Your task to perform on an android device: find which apps use the phone's location Image 0: 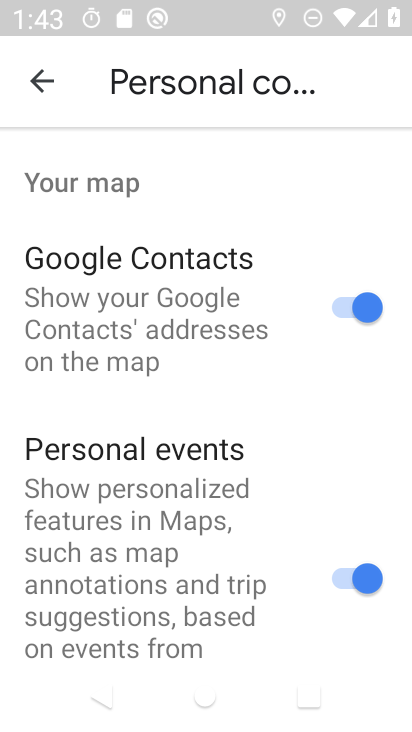
Step 0: press home button
Your task to perform on an android device: find which apps use the phone's location Image 1: 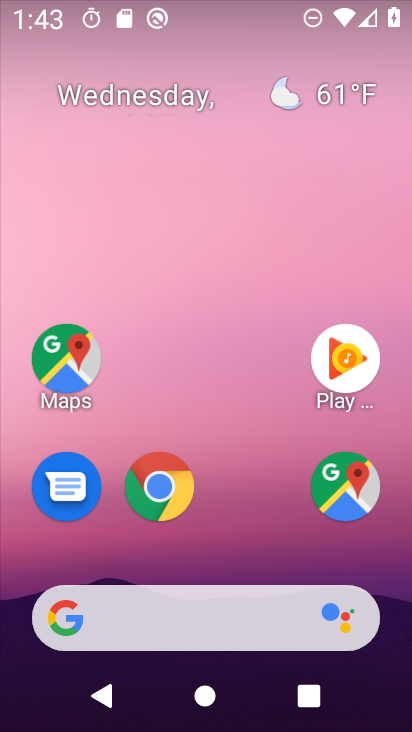
Step 1: drag from (249, 525) to (255, 92)
Your task to perform on an android device: find which apps use the phone's location Image 2: 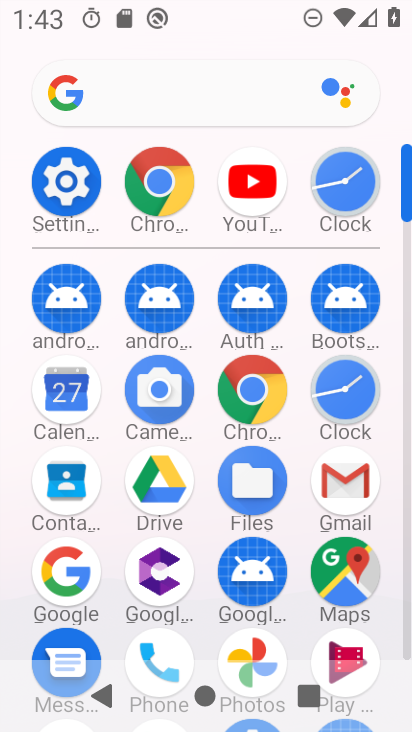
Step 2: click (48, 181)
Your task to perform on an android device: find which apps use the phone's location Image 3: 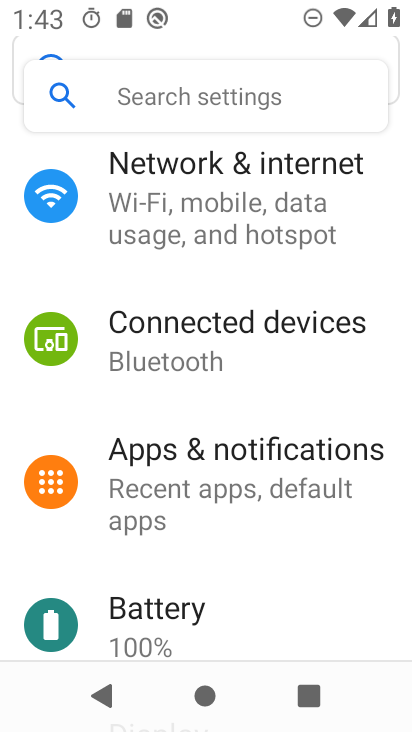
Step 3: drag from (353, 511) to (355, 420)
Your task to perform on an android device: find which apps use the phone's location Image 4: 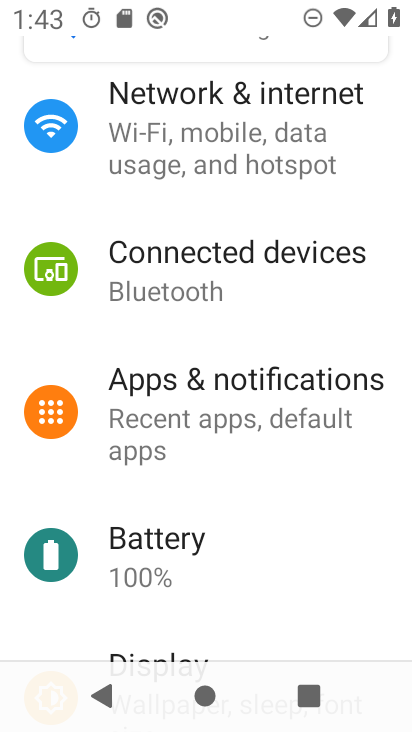
Step 4: drag from (353, 545) to (349, 441)
Your task to perform on an android device: find which apps use the phone's location Image 5: 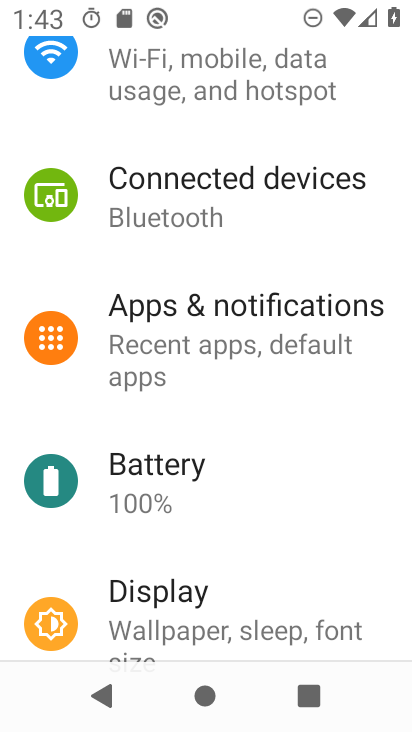
Step 5: drag from (330, 575) to (318, 491)
Your task to perform on an android device: find which apps use the phone's location Image 6: 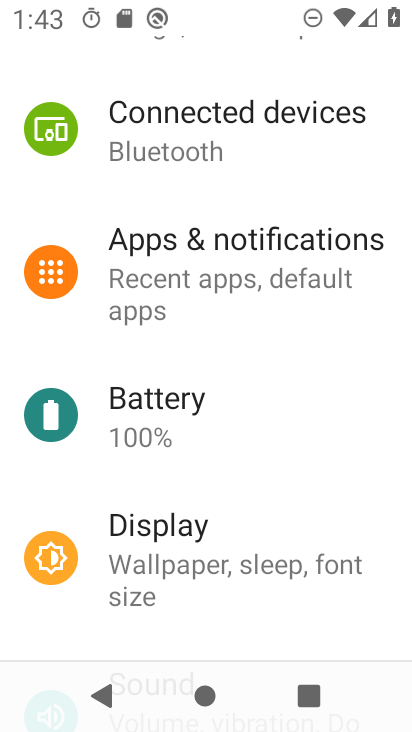
Step 6: drag from (309, 578) to (301, 484)
Your task to perform on an android device: find which apps use the phone's location Image 7: 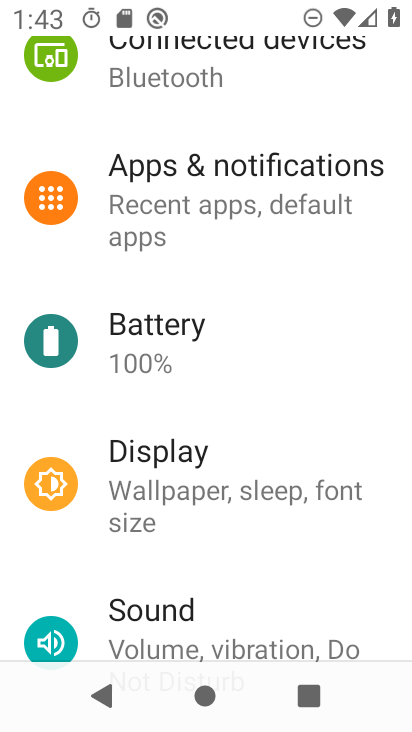
Step 7: drag from (310, 559) to (304, 474)
Your task to perform on an android device: find which apps use the phone's location Image 8: 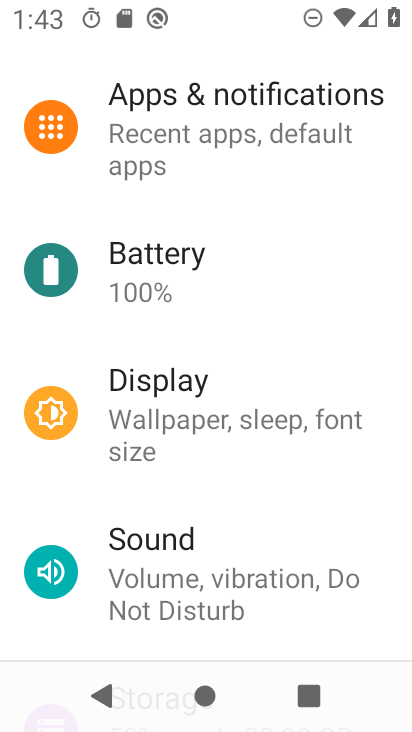
Step 8: drag from (318, 515) to (325, 391)
Your task to perform on an android device: find which apps use the phone's location Image 9: 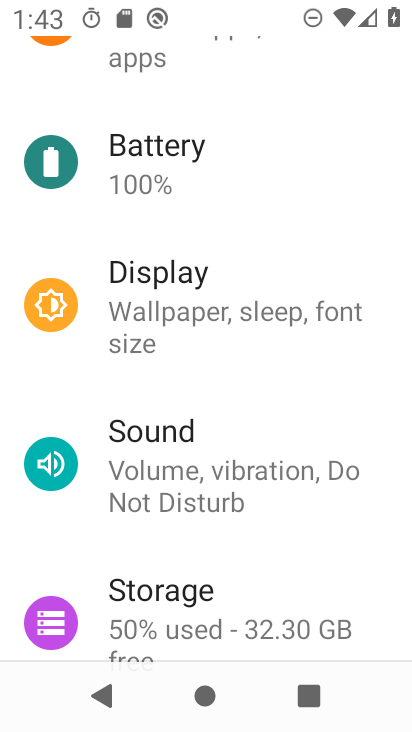
Step 9: drag from (349, 560) to (345, 455)
Your task to perform on an android device: find which apps use the phone's location Image 10: 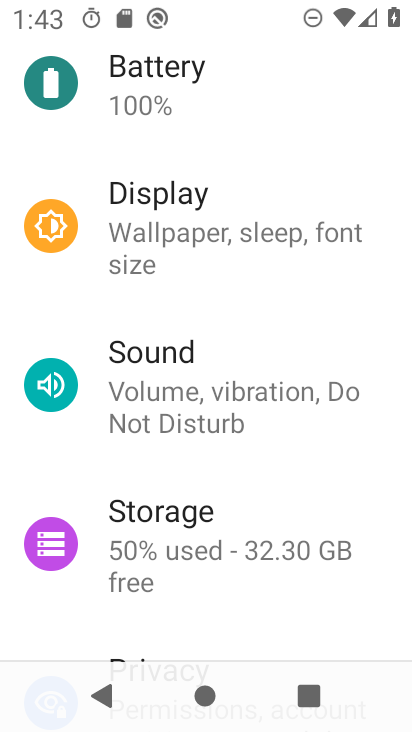
Step 10: drag from (331, 576) to (329, 459)
Your task to perform on an android device: find which apps use the phone's location Image 11: 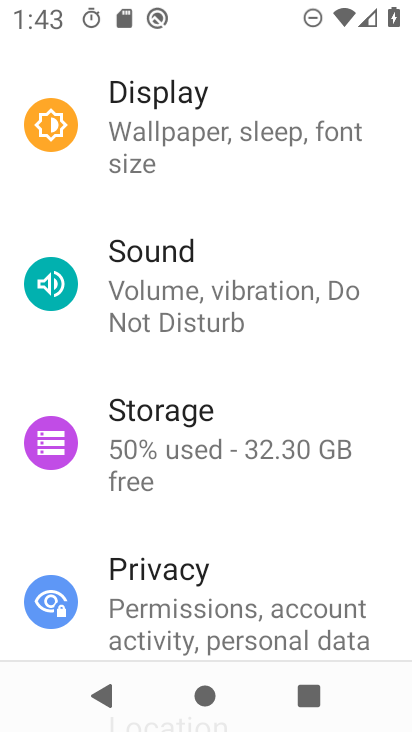
Step 11: drag from (331, 537) to (324, 445)
Your task to perform on an android device: find which apps use the phone's location Image 12: 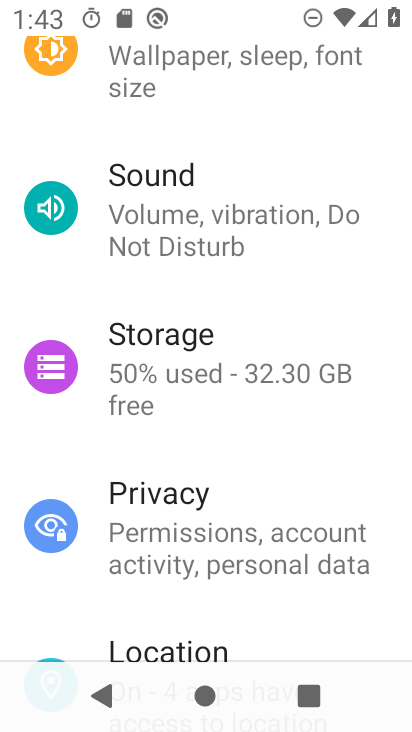
Step 12: drag from (322, 569) to (317, 463)
Your task to perform on an android device: find which apps use the phone's location Image 13: 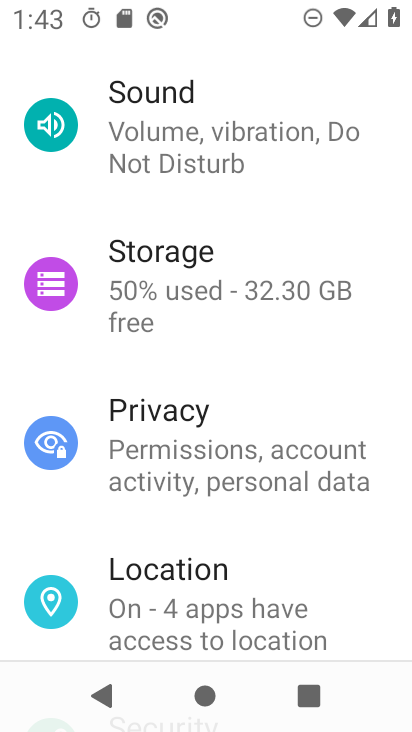
Step 13: drag from (336, 530) to (328, 439)
Your task to perform on an android device: find which apps use the phone's location Image 14: 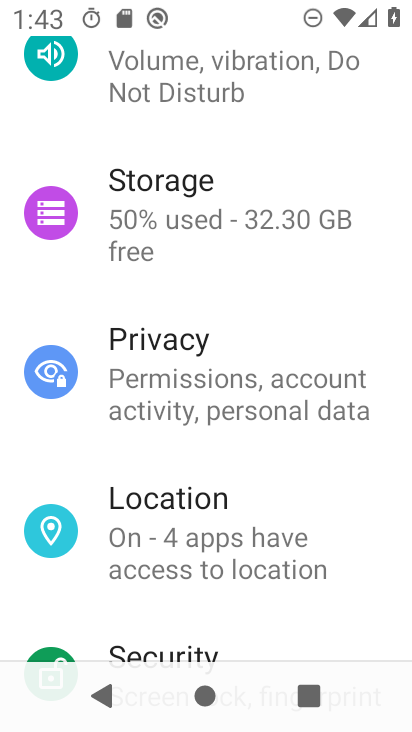
Step 14: drag from (326, 510) to (324, 436)
Your task to perform on an android device: find which apps use the phone's location Image 15: 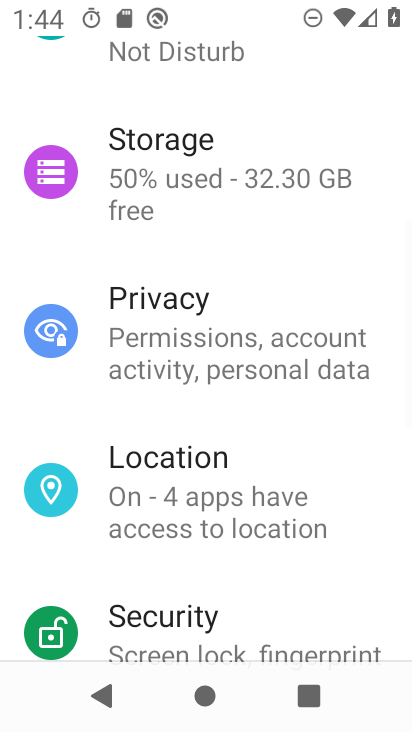
Step 15: click (317, 481)
Your task to perform on an android device: find which apps use the phone's location Image 16: 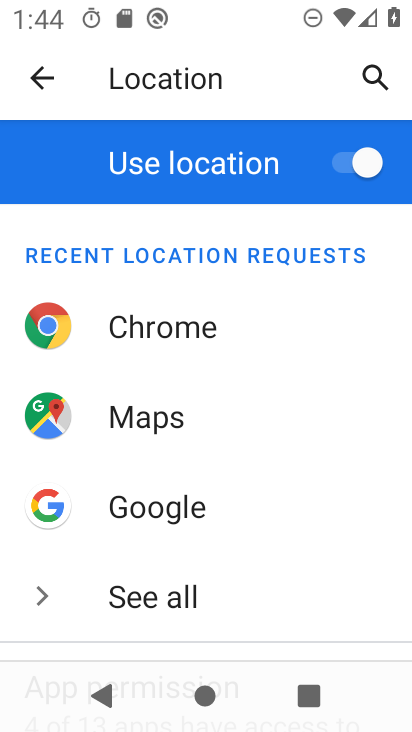
Step 16: drag from (317, 558) to (313, 440)
Your task to perform on an android device: find which apps use the phone's location Image 17: 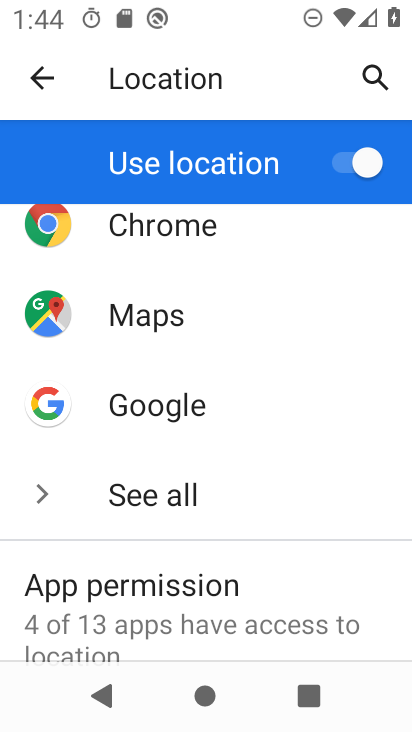
Step 17: drag from (326, 536) to (323, 452)
Your task to perform on an android device: find which apps use the phone's location Image 18: 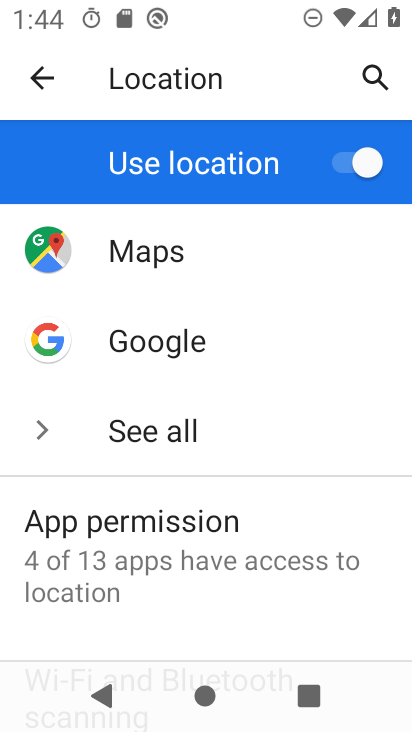
Step 18: drag from (284, 579) to (278, 406)
Your task to perform on an android device: find which apps use the phone's location Image 19: 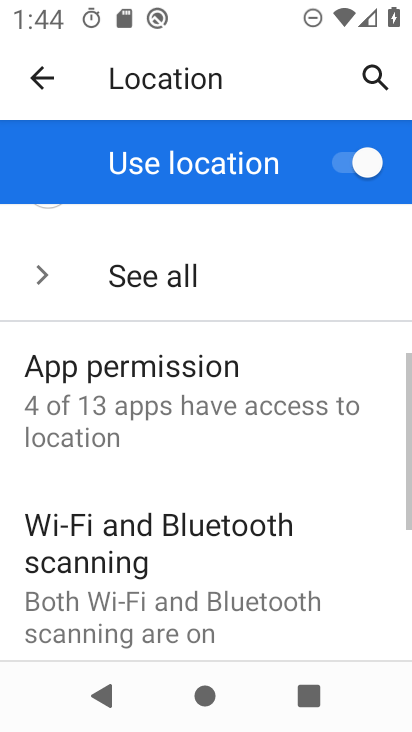
Step 19: click (277, 405)
Your task to perform on an android device: find which apps use the phone's location Image 20: 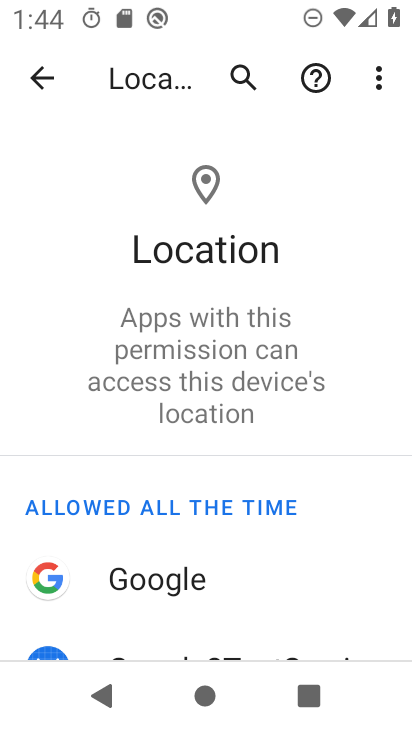
Step 20: drag from (310, 562) to (328, 402)
Your task to perform on an android device: find which apps use the phone's location Image 21: 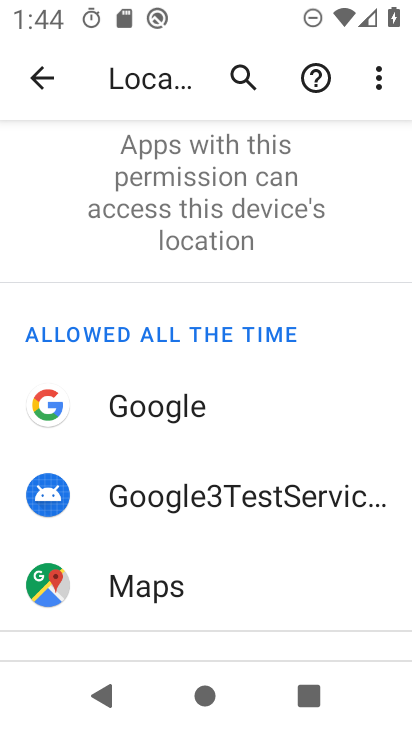
Step 21: drag from (307, 572) to (309, 400)
Your task to perform on an android device: find which apps use the phone's location Image 22: 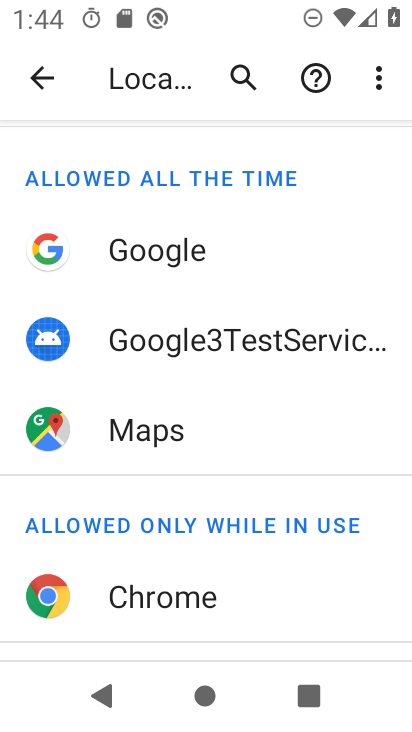
Step 22: drag from (311, 576) to (314, 273)
Your task to perform on an android device: find which apps use the phone's location Image 23: 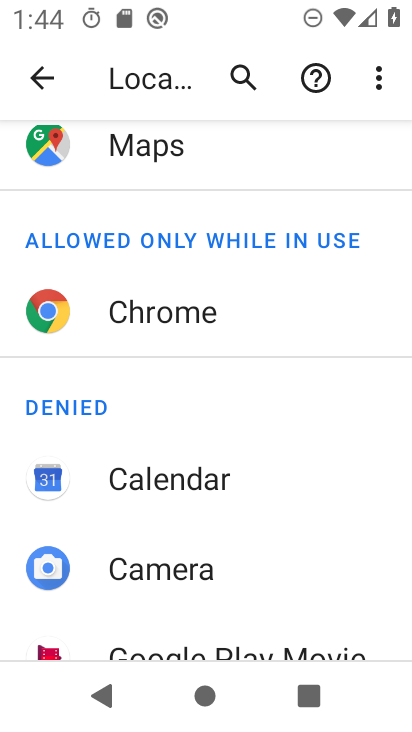
Step 23: drag from (318, 533) to (318, 359)
Your task to perform on an android device: find which apps use the phone's location Image 24: 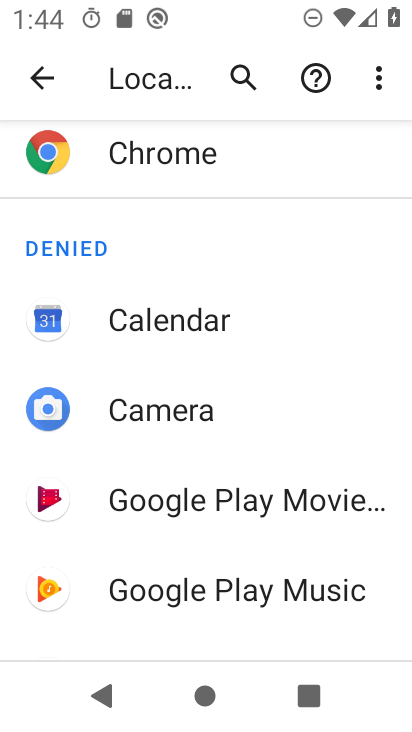
Step 24: drag from (333, 622) to (325, 387)
Your task to perform on an android device: find which apps use the phone's location Image 25: 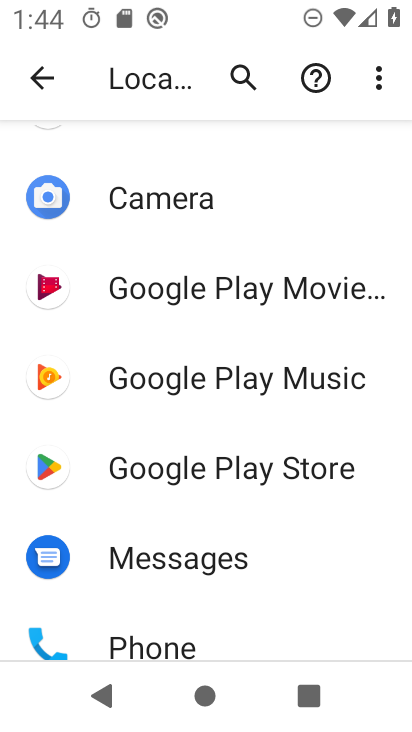
Step 25: drag from (331, 594) to (335, 400)
Your task to perform on an android device: find which apps use the phone's location Image 26: 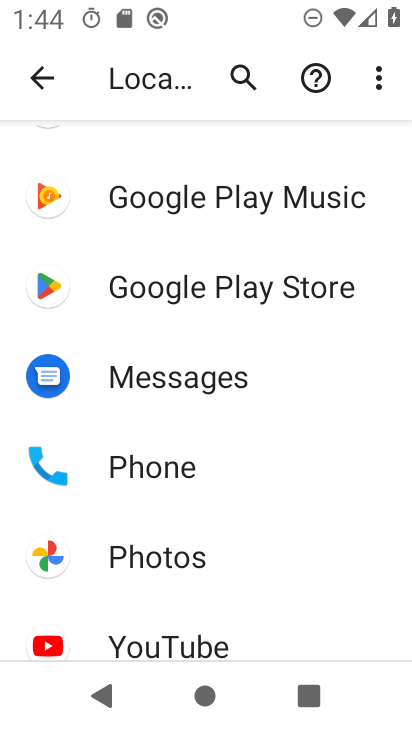
Step 26: click (293, 575)
Your task to perform on an android device: find which apps use the phone's location Image 27: 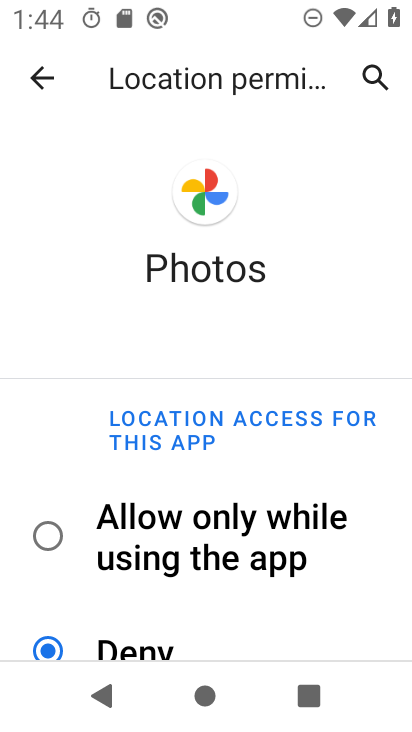
Step 27: click (288, 557)
Your task to perform on an android device: find which apps use the phone's location Image 28: 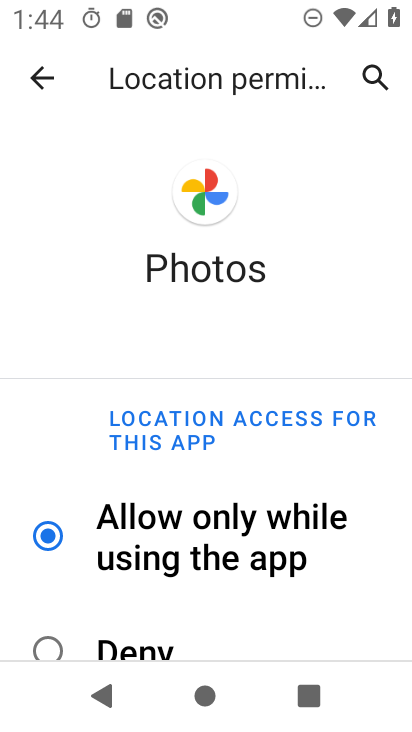
Step 28: task complete